Your task to perform on an android device: What's on my calendar tomorrow? Image 0: 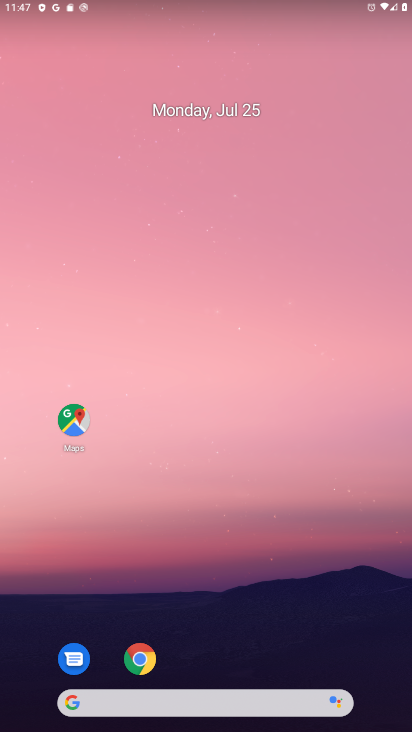
Step 0: drag from (220, 638) to (154, 25)
Your task to perform on an android device: What's on my calendar tomorrow? Image 1: 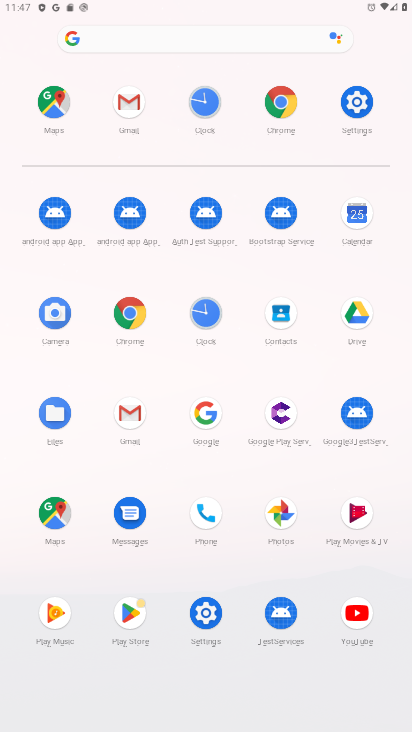
Step 1: click (353, 213)
Your task to perform on an android device: What's on my calendar tomorrow? Image 2: 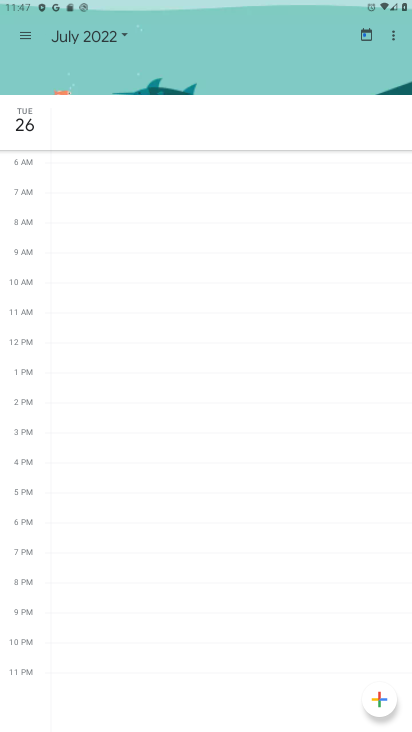
Step 2: click (117, 34)
Your task to perform on an android device: What's on my calendar tomorrow? Image 3: 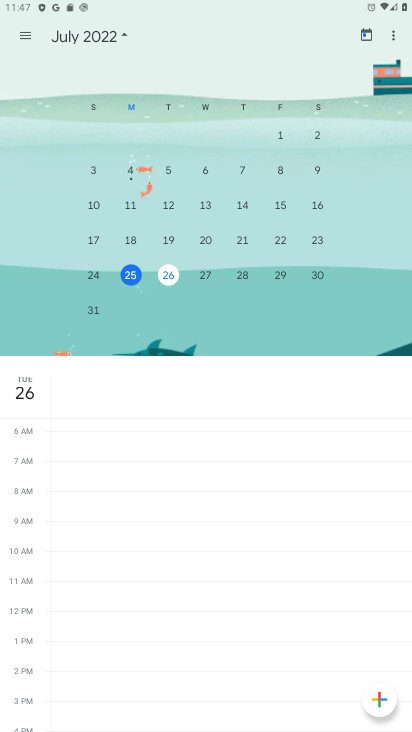
Step 3: click (168, 276)
Your task to perform on an android device: What's on my calendar tomorrow? Image 4: 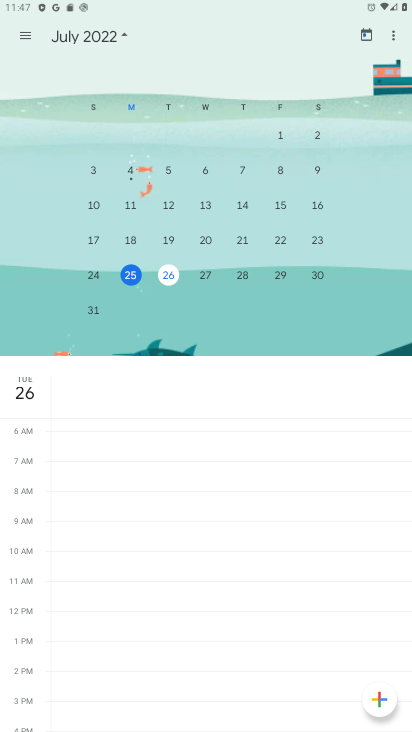
Step 4: click (168, 276)
Your task to perform on an android device: What's on my calendar tomorrow? Image 5: 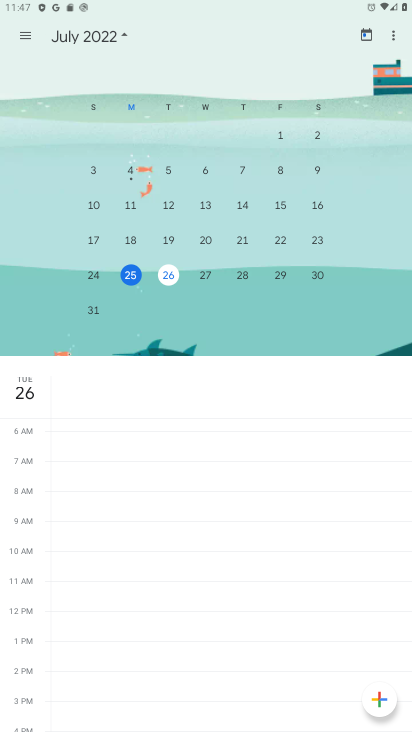
Step 5: task complete